Your task to perform on an android device: When is my next meeting? Image 0: 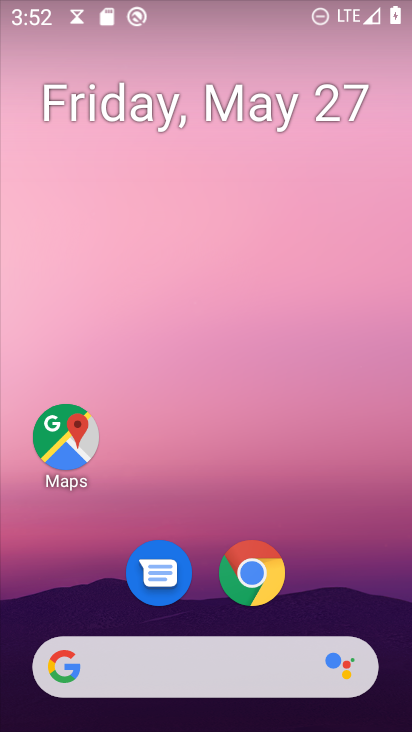
Step 0: drag from (341, 604) to (360, 66)
Your task to perform on an android device: When is my next meeting? Image 1: 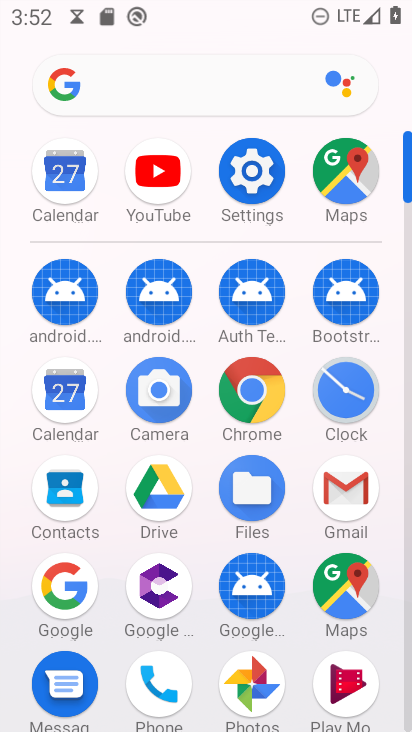
Step 1: click (55, 381)
Your task to perform on an android device: When is my next meeting? Image 2: 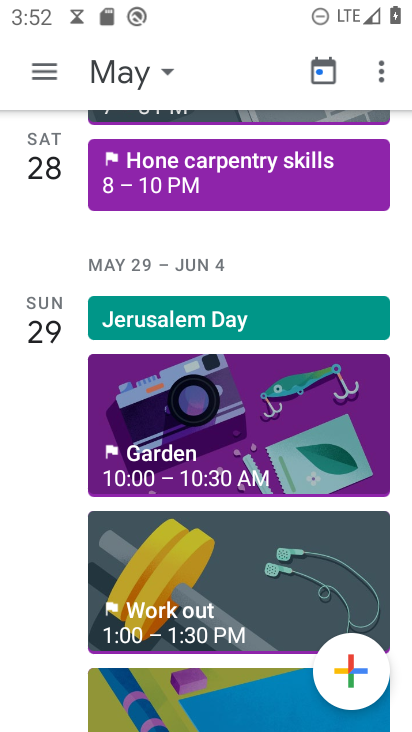
Step 2: click (150, 84)
Your task to perform on an android device: When is my next meeting? Image 3: 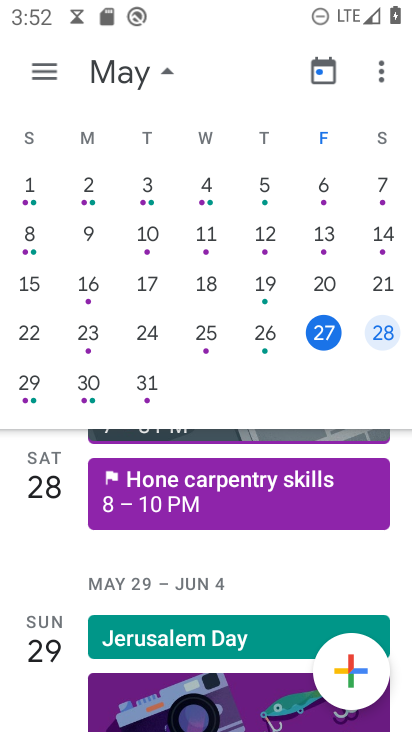
Step 3: click (320, 346)
Your task to perform on an android device: When is my next meeting? Image 4: 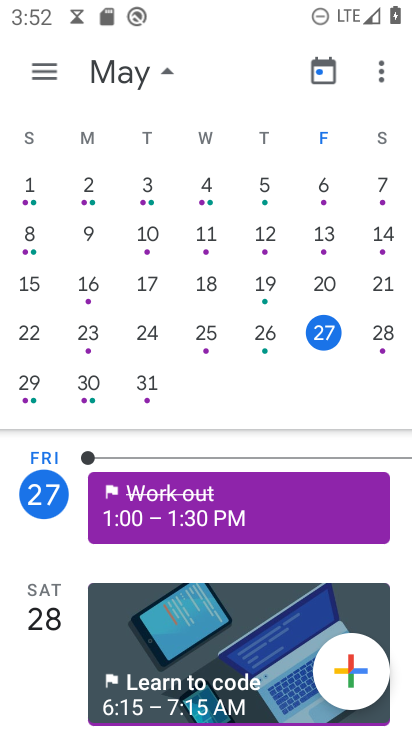
Step 4: task complete